Your task to perform on an android device: turn off sleep mode Image 0: 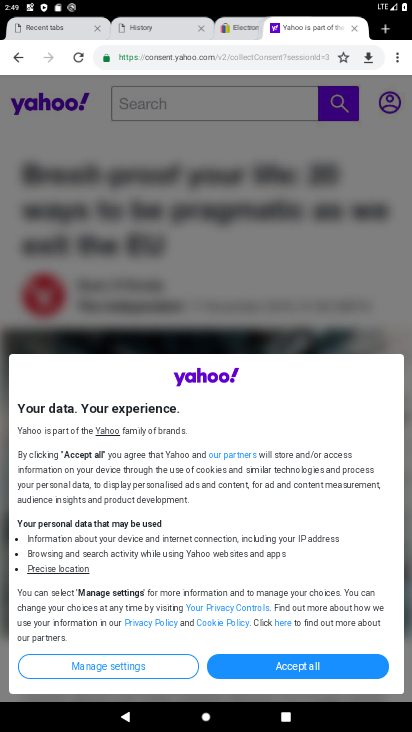
Step 0: press home button
Your task to perform on an android device: turn off sleep mode Image 1: 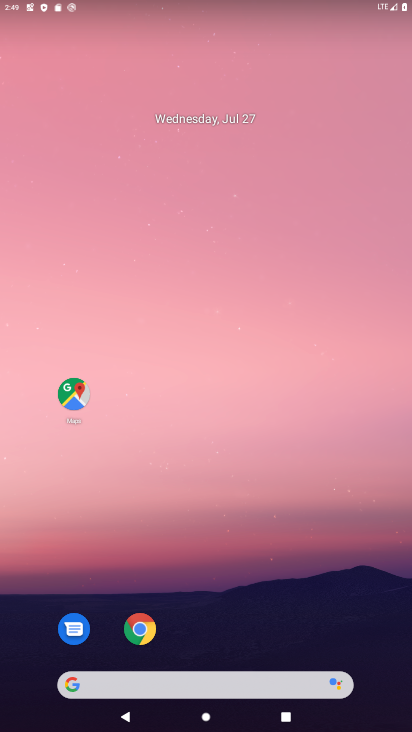
Step 1: drag from (222, 602) to (322, 19)
Your task to perform on an android device: turn off sleep mode Image 2: 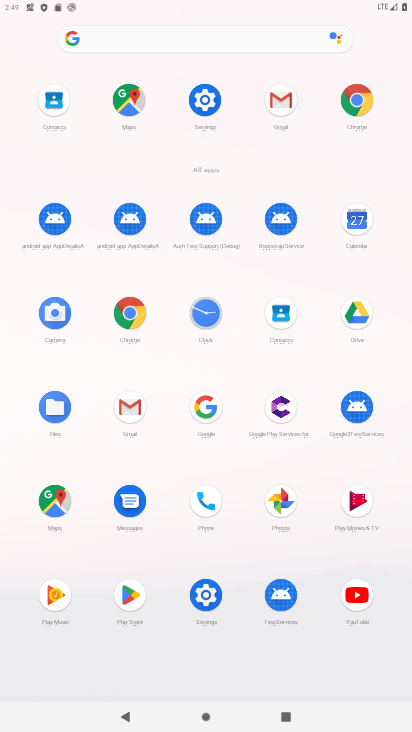
Step 2: click (207, 110)
Your task to perform on an android device: turn off sleep mode Image 3: 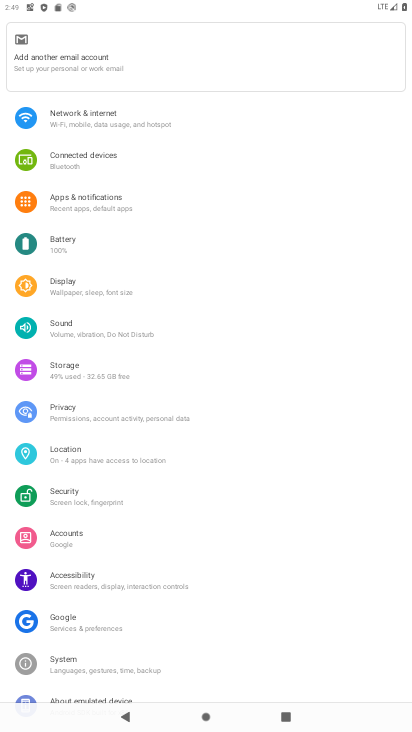
Step 3: task complete